Your task to perform on an android device: Go to Yahoo.com Image 0: 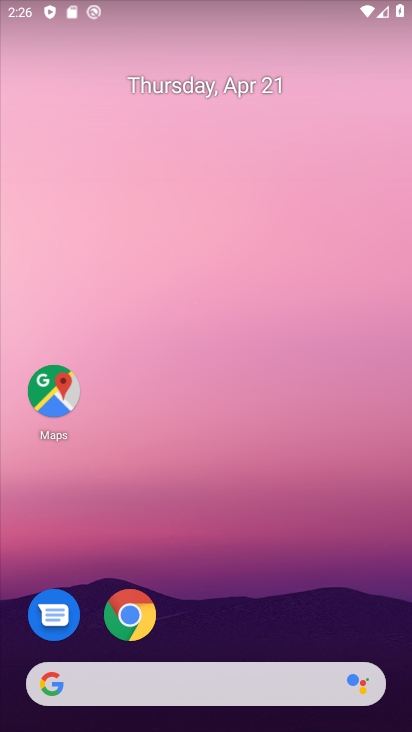
Step 0: click (125, 616)
Your task to perform on an android device: Go to Yahoo.com Image 1: 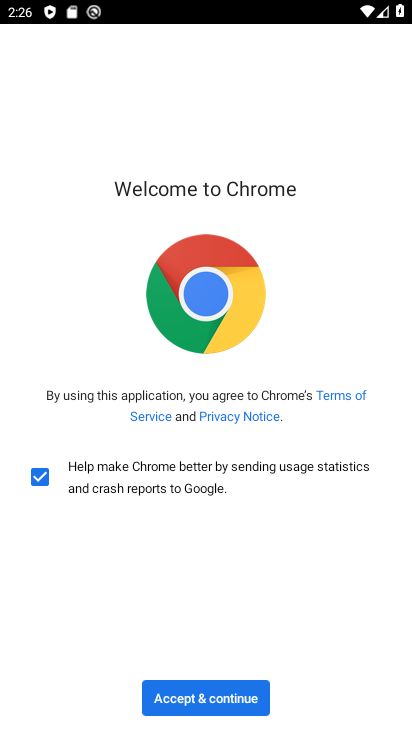
Step 1: click (246, 709)
Your task to perform on an android device: Go to Yahoo.com Image 2: 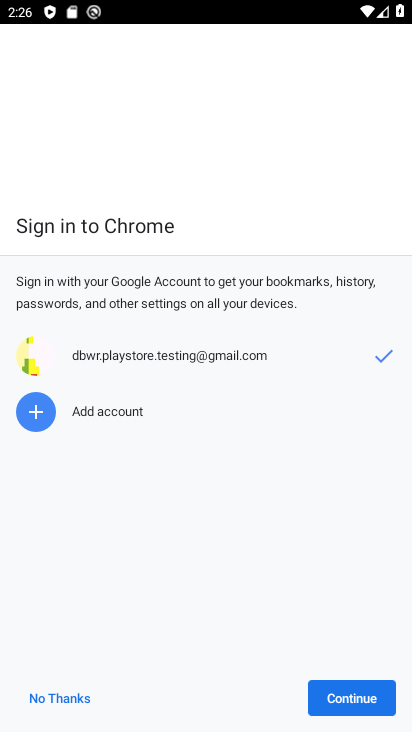
Step 2: click (380, 699)
Your task to perform on an android device: Go to Yahoo.com Image 3: 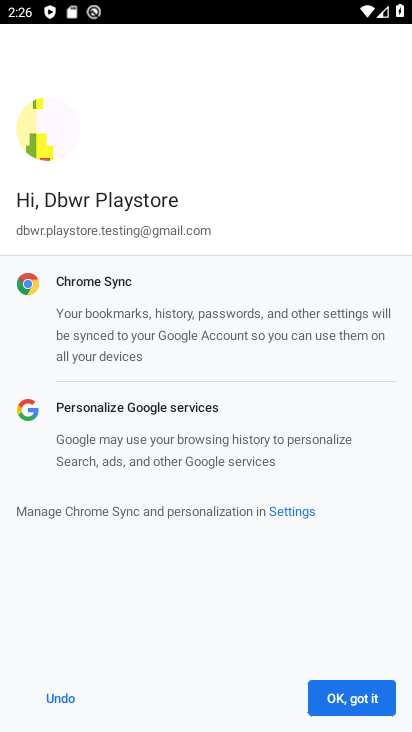
Step 3: click (380, 699)
Your task to perform on an android device: Go to Yahoo.com Image 4: 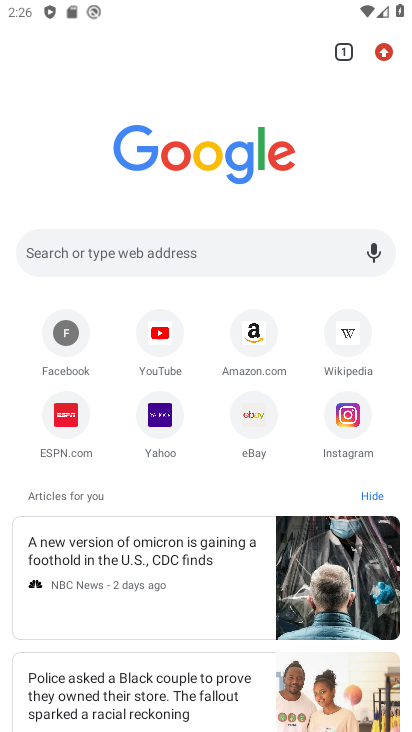
Step 4: click (155, 425)
Your task to perform on an android device: Go to Yahoo.com Image 5: 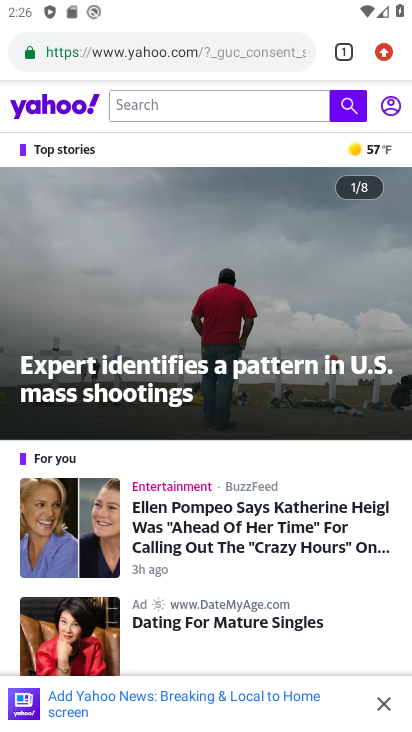
Step 5: task complete